Your task to perform on an android device: Go to accessibility settings Image 0: 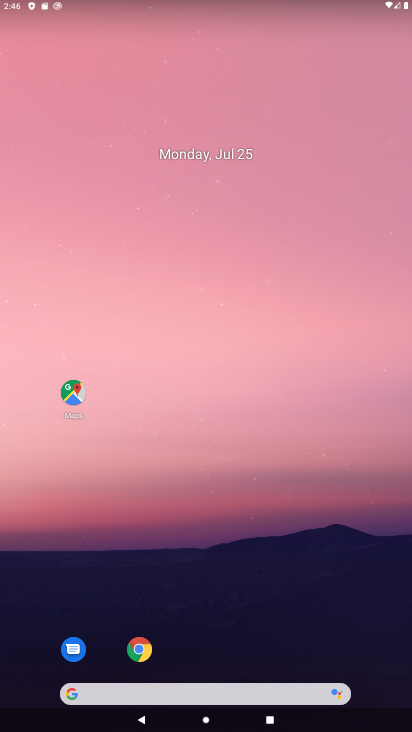
Step 0: drag from (217, 704) to (190, 9)
Your task to perform on an android device: Go to accessibility settings Image 1: 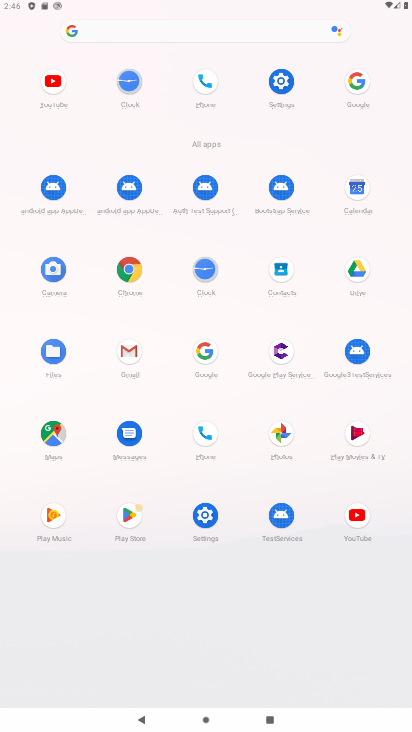
Step 1: click (270, 79)
Your task to perform on an android device: Go to accessibility settings Image 2: 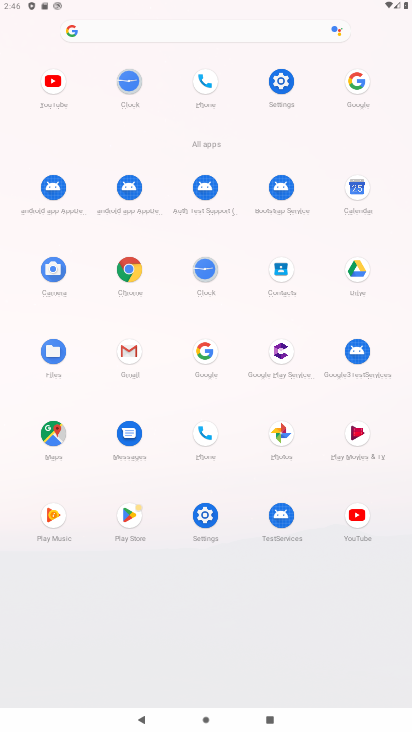
Step 2: click (270, 79)
Your task to perform on an android device: Go to accessibility settings Image 3: 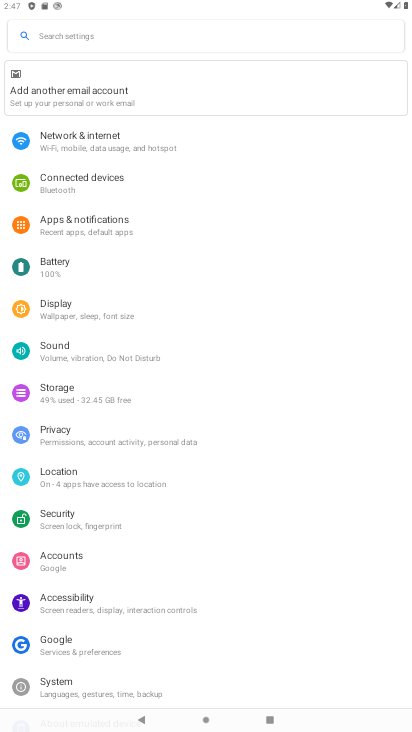
Step 3: click (117, 596)
Your task to perform on an android device: Go to accessibility settings Image 4: 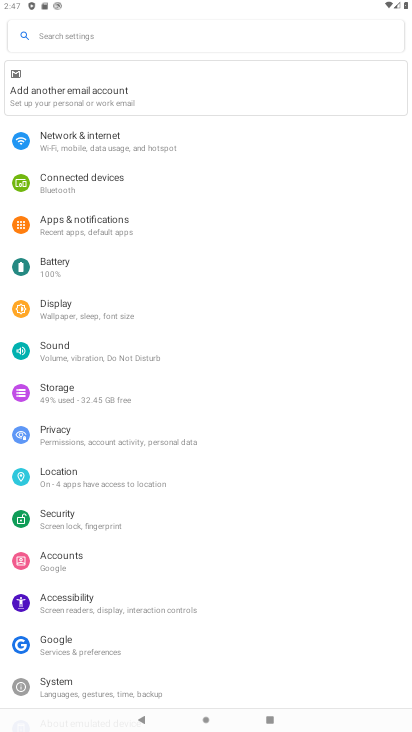
Step 4: click (117, 596)
Your task to perform on an android device: Go to accessibility settings Image 5: 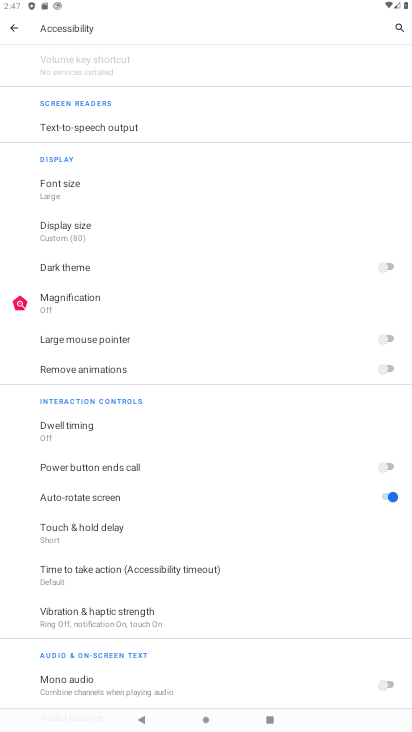
Step 5: task complete